Your task to perform on an android device: Search for "asus rog" on amazon, select the first entry, and add it to the cart. Image 0: 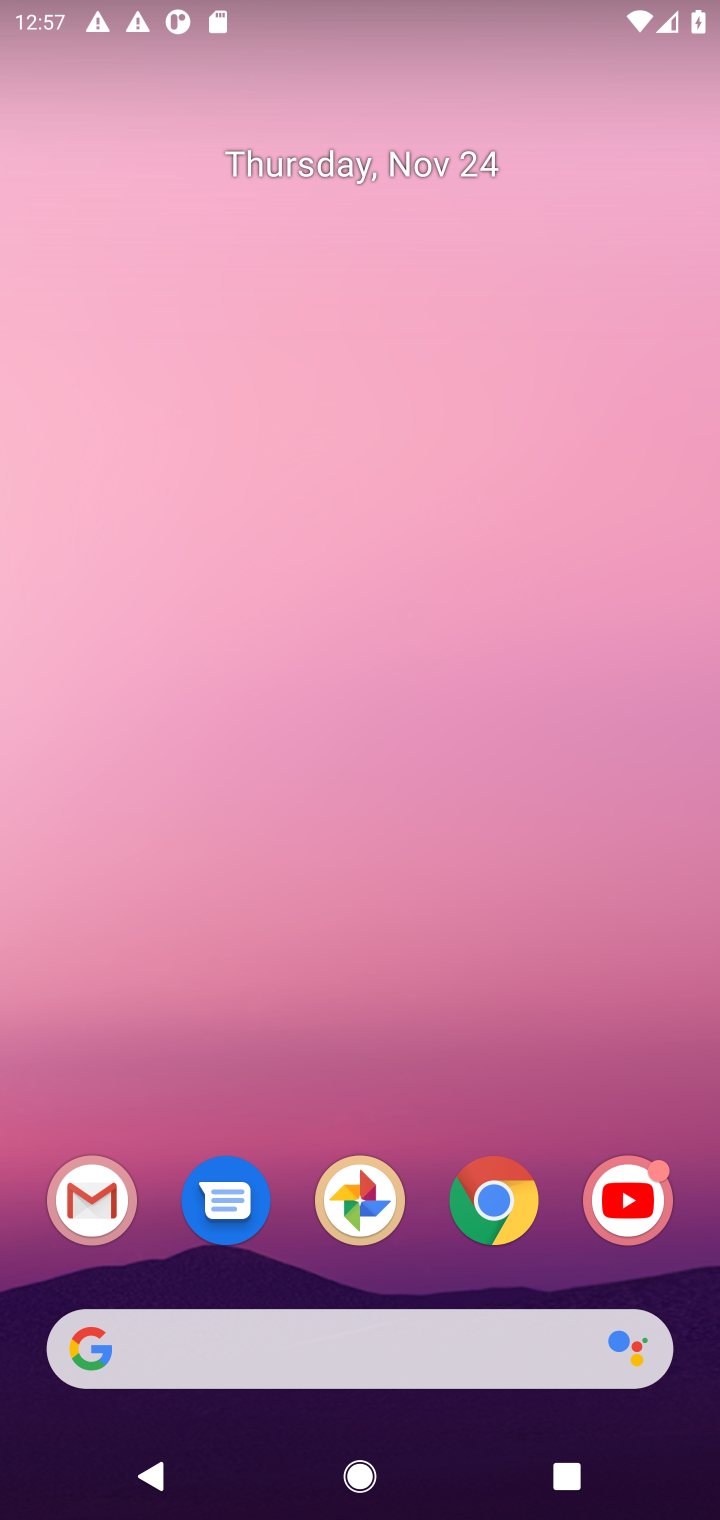
Step 0: click (423, 1379)
Your task to perform on an android device: Search for "asus rog" on amazon, select the first entry, and add it to the cart. Image 1: 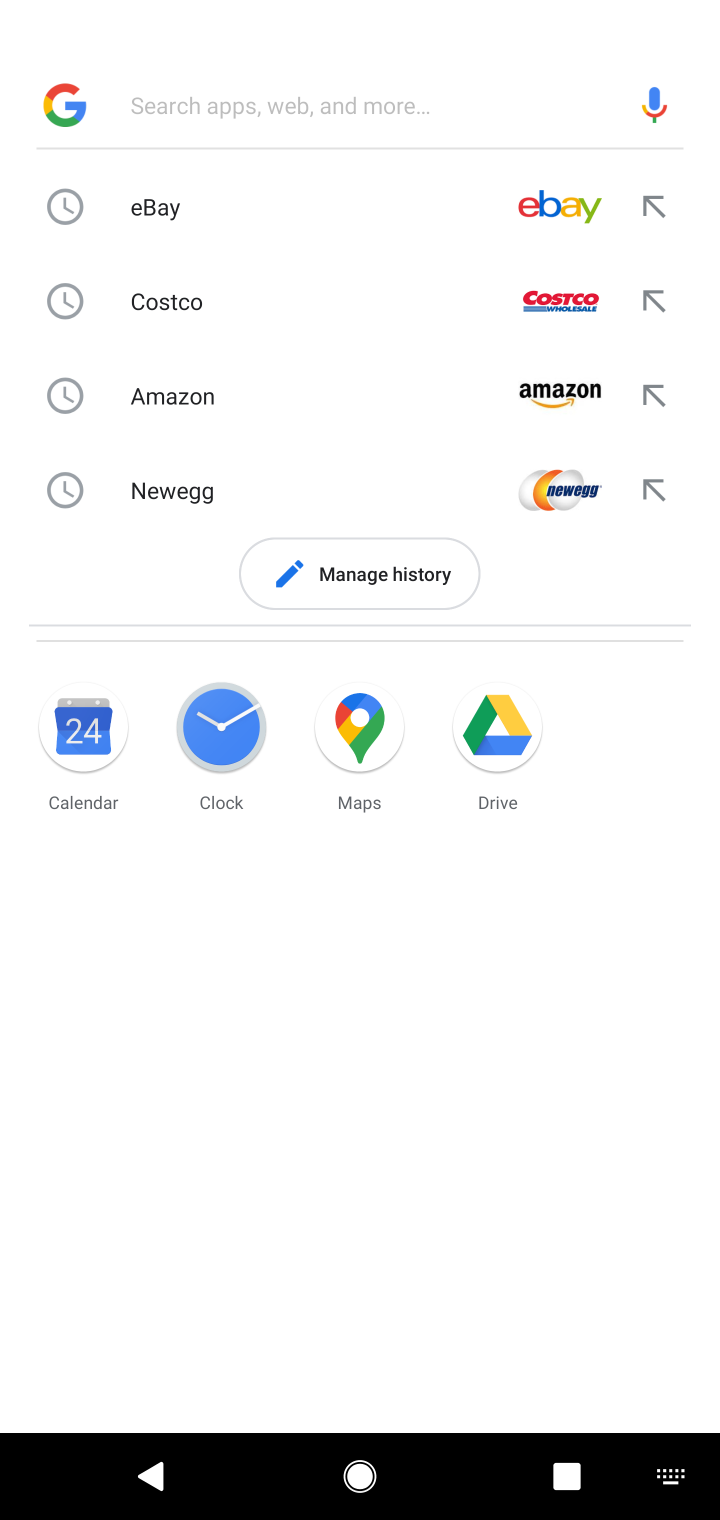
Step 1: type "amazon"
Your task to perform on an android device: Search for "asus rog" on amazon, select the first entry, and add it to the cart. Image 2: 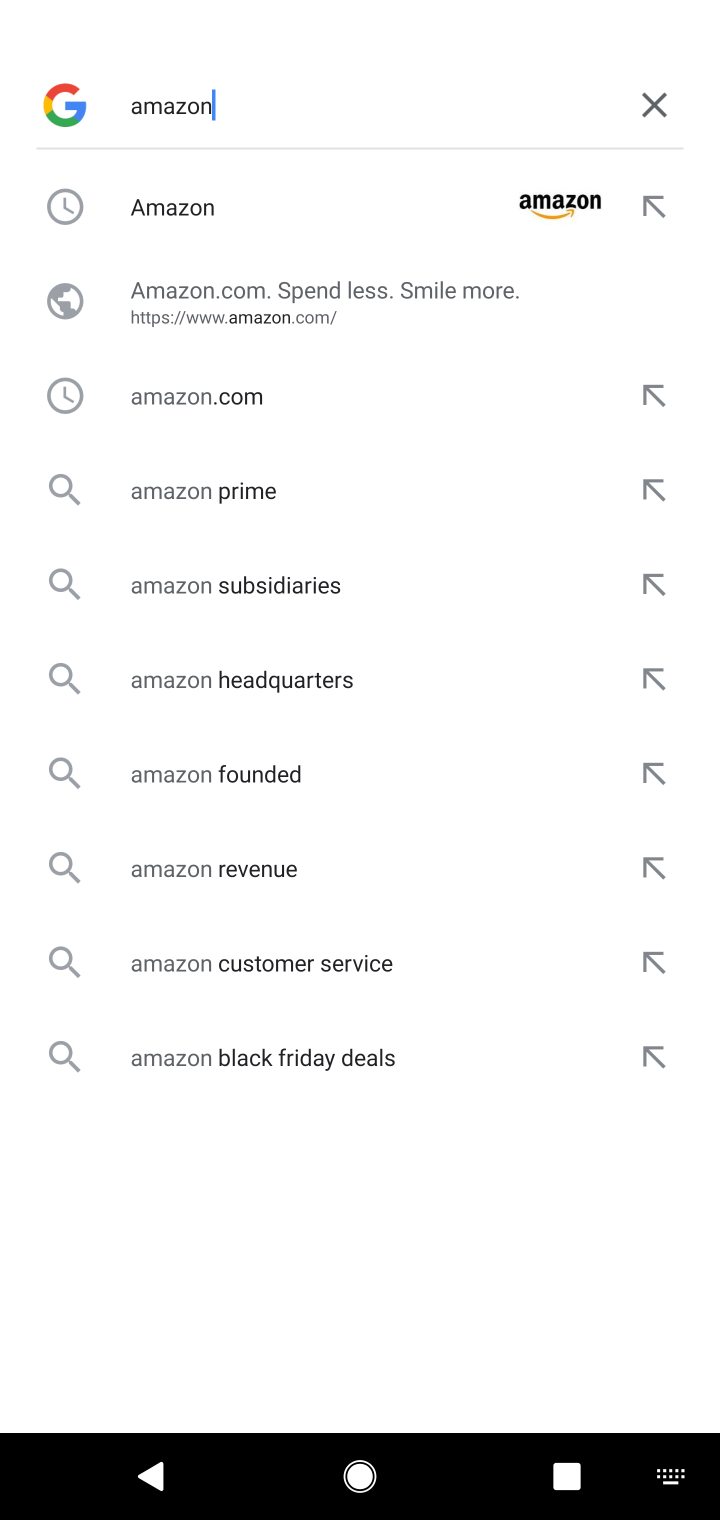
Step 2: click (356, 191)
Your task to perform on an android device: Search for "asus rog" on amazon, select the first entry, and add it to the cart. Image 3: 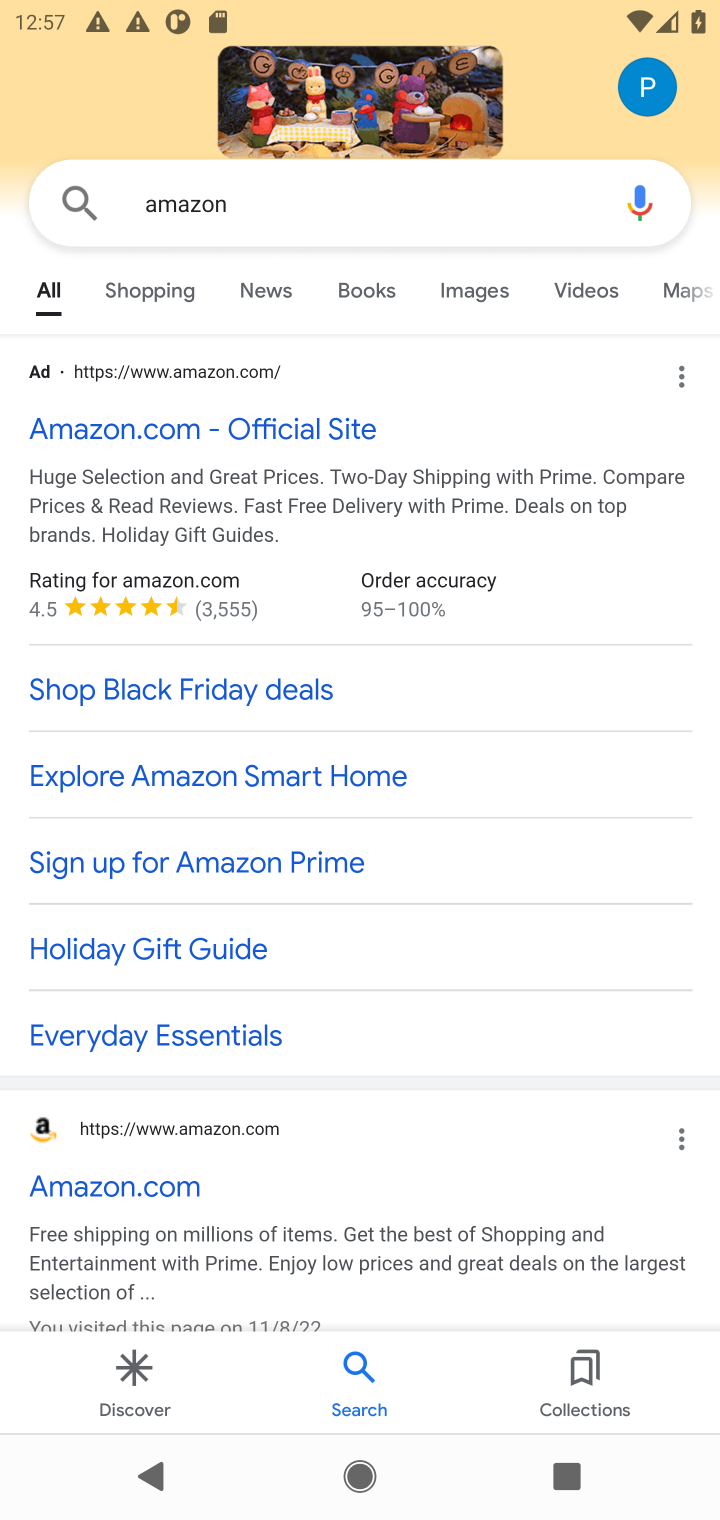
Step 3: click (277, 396)
Your task to perform on an android device: Search for "asus rog" on amazon, select the first entry, and add it to the cart. Image 4: 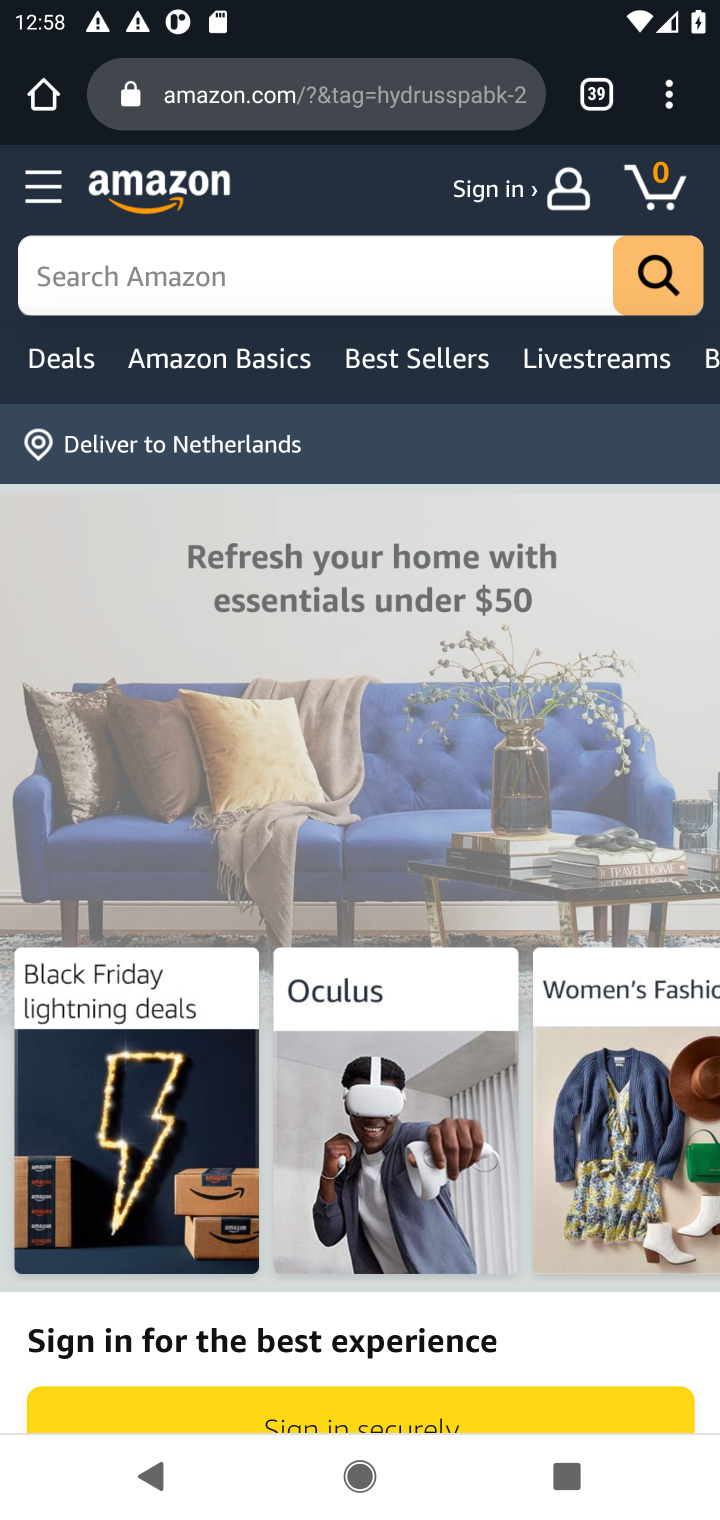
Step 4: click (288, 266)
Your task to perform on an android device: Search for "asus rog" on amazon, select the first entry, and add it to the cart. Image 5: 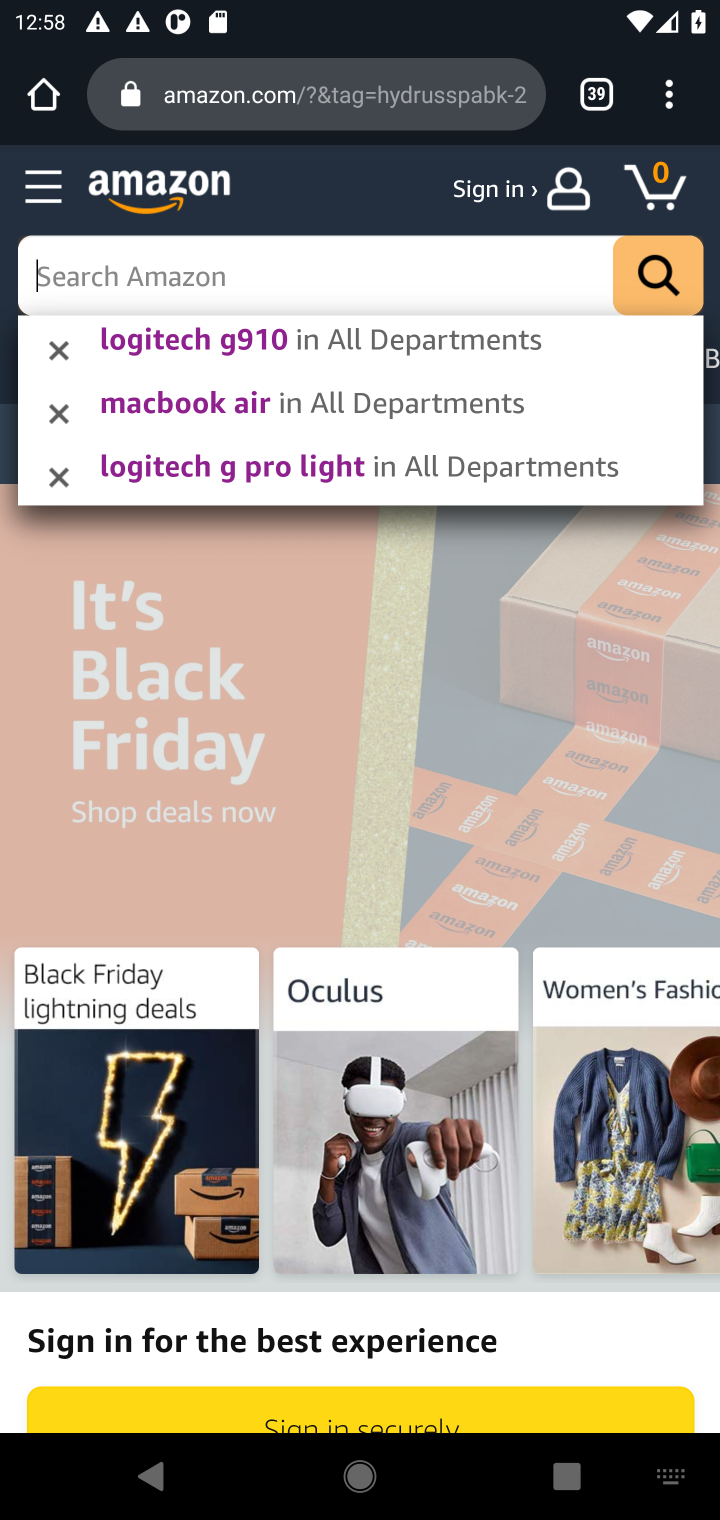
Step 5: type "asus rog"
Your task to perform on an android device: Search for "asus rog" on amazon, select the first entry, and add it to the cart. Image 6: 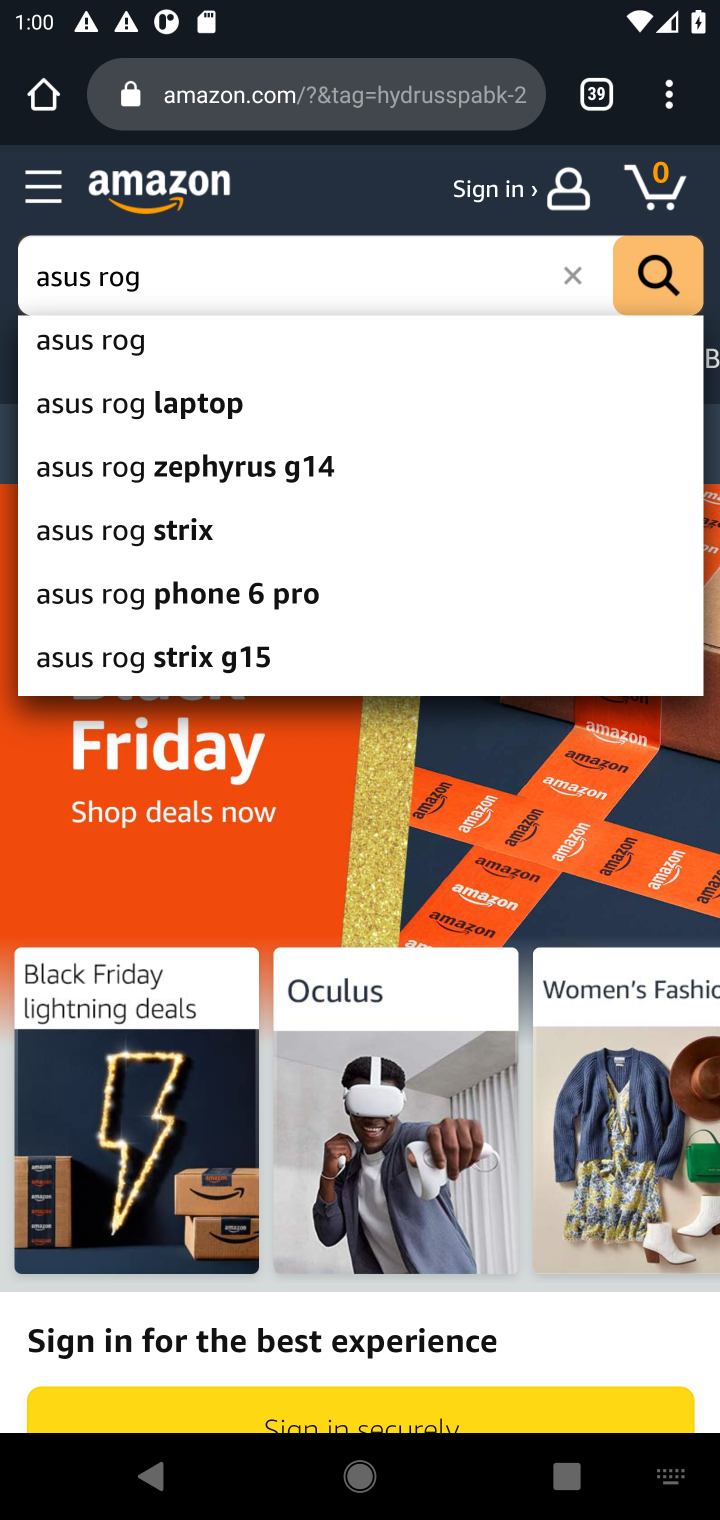
Step 6: click (655, 281)
Your task to perform on an android device: Search for "asus rog" on amazon, select the first entry, and add it to the cart. Image 7: 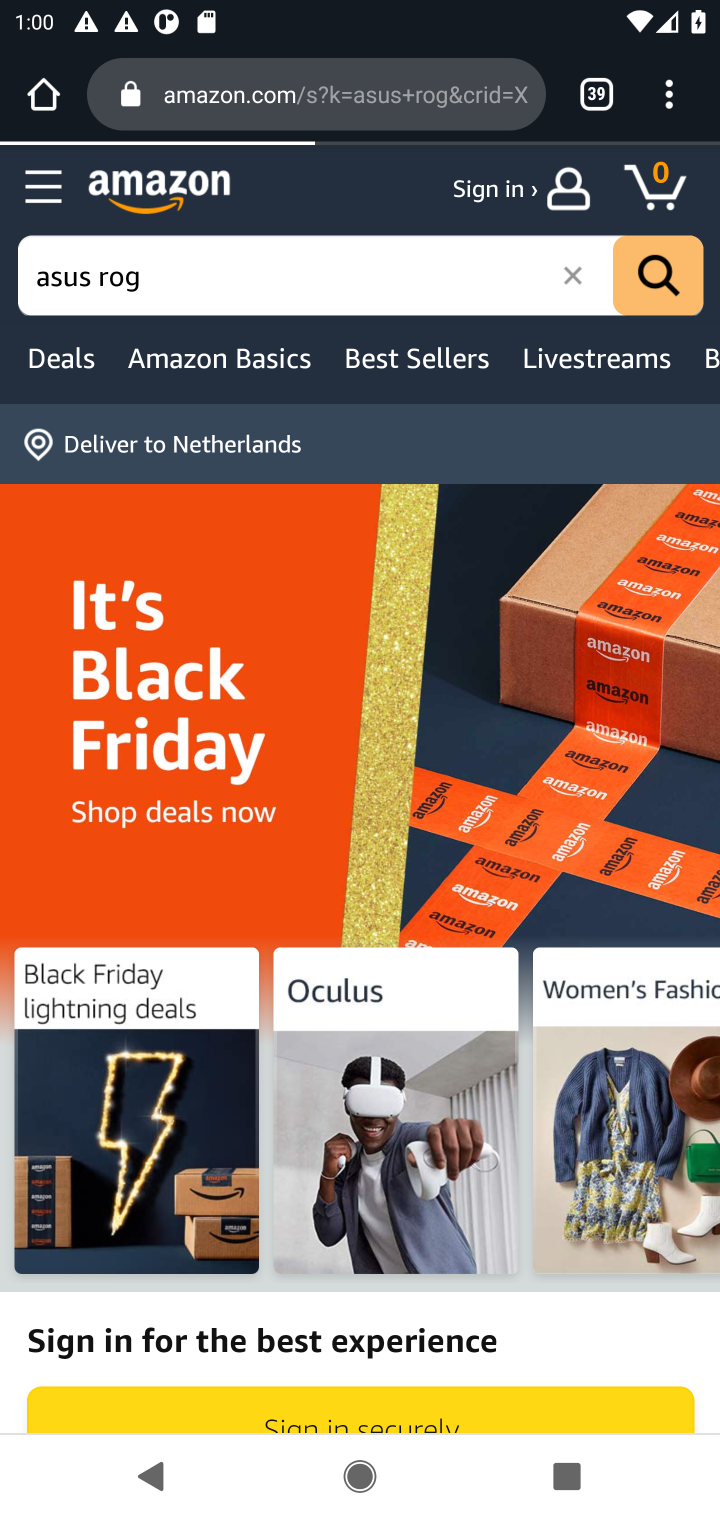
Step 7: task complete